Your task to perform on an android device: set an alarm Image 0: 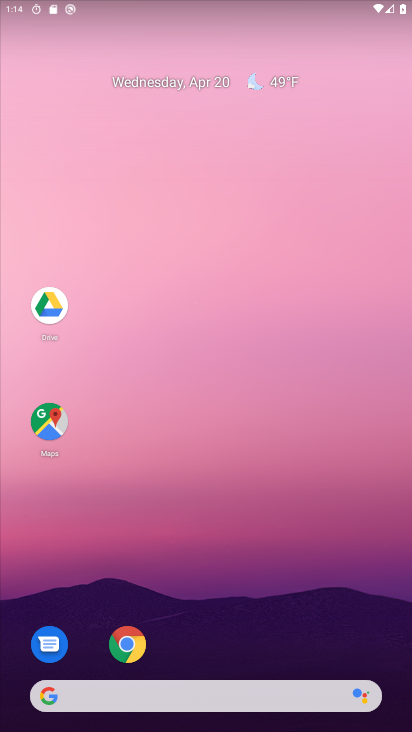
Step 0: drag from (263, 600) to (229, 114)
Your task to perform on an android device: set an alarm Image 1: 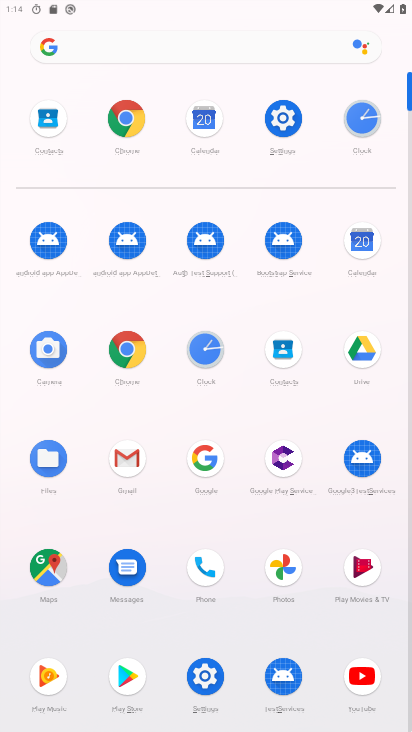
Step 1: click (206, 355)
Your task to perform on an android device: set an alarm Image 2: 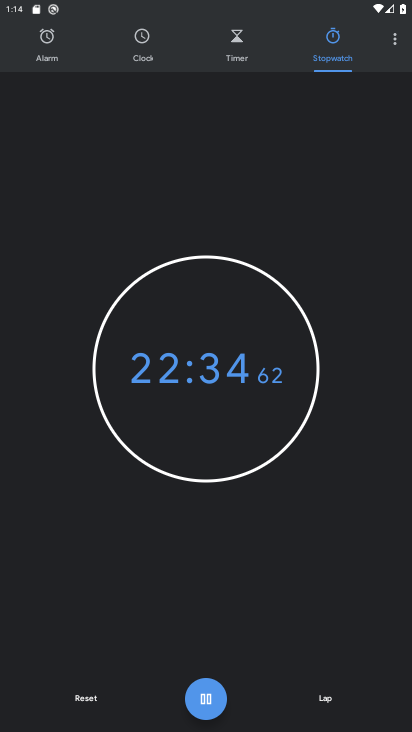
Step 2: click (39, 43)
Your task to perform on an android device: set an alarm Image 3: 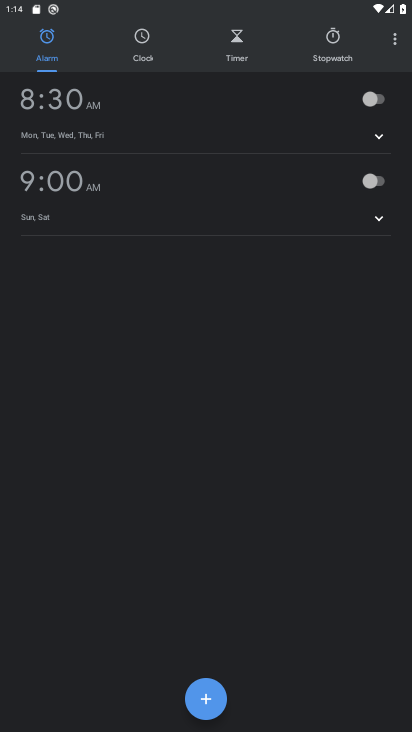
Step 3: click (367, 102)
Your task to perform on an android device: set an alarm Image 4: 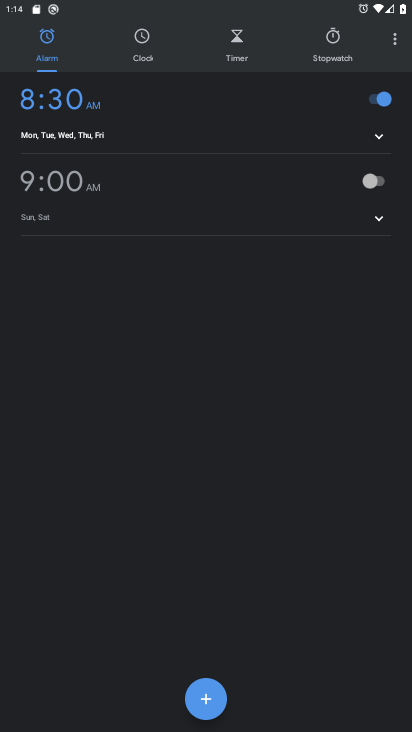
Step 4: task complete